Your task to perform on an android device: set the timer Image 0: 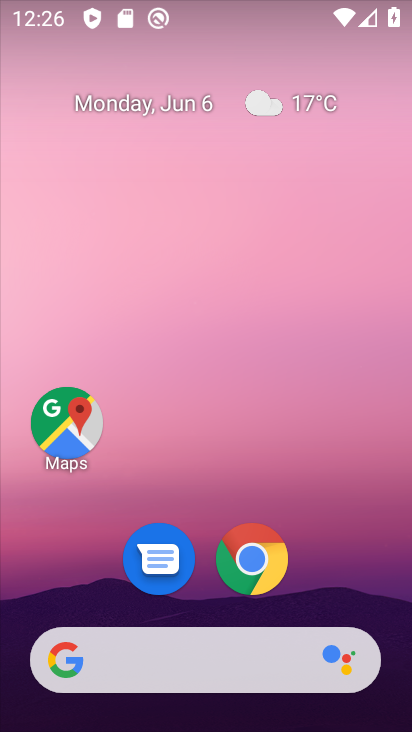
Step 0: drag from (267, 573) to (292, 50)
Your task to perform on an android device: set the timer Image 1: 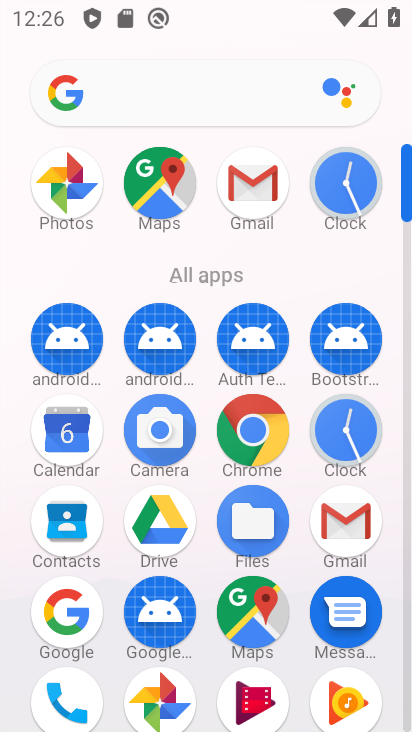
Step 1: drag from (255, 497) to (229, 39)
Your task to perform on an android device: set the timer Image 2: 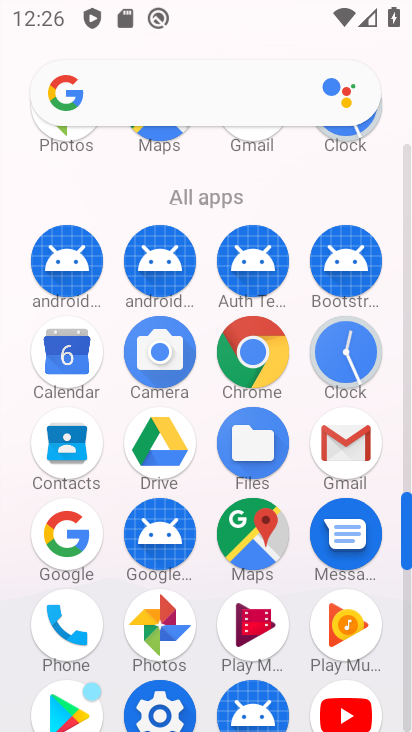
Step 2: drag from (224, 536) to (265, 165)
Your task to perform on an android device: set the timer Image 3: 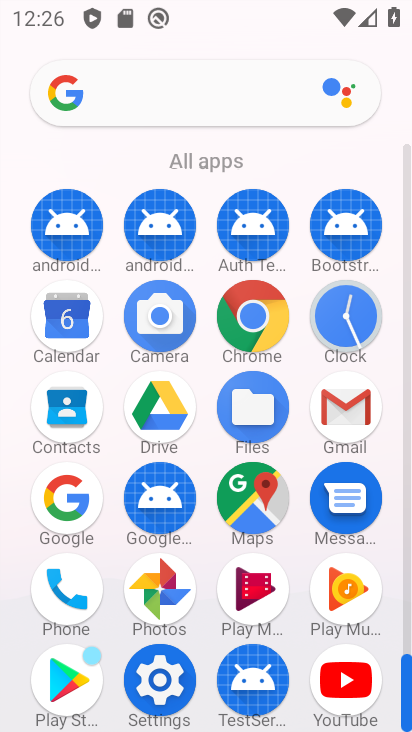
Step 3: click (345, 331)
Your task to perform on an android device: set the timer Image 4: 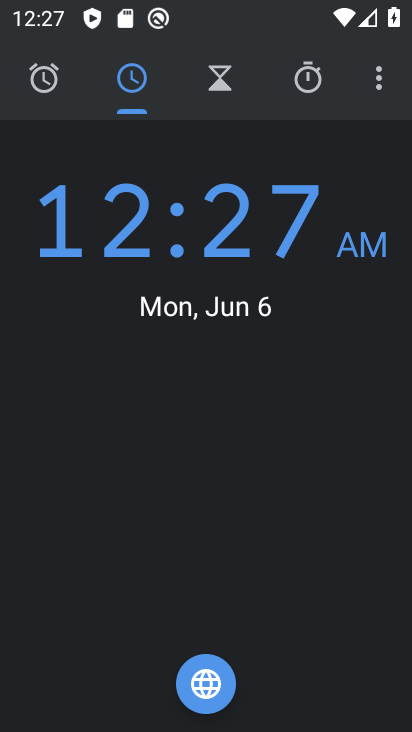
Step 4: click (231, 71)
Your task to perform on an android device: set the timer Image 5: 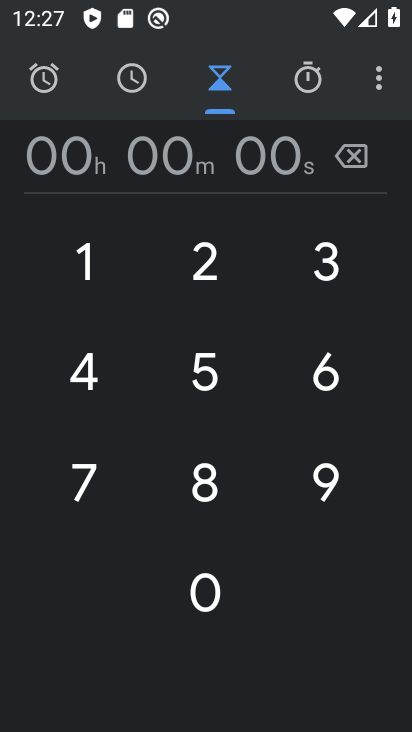
Step 5: click (219, 272)
Your task to perform on an android device: set the timer Image 6: 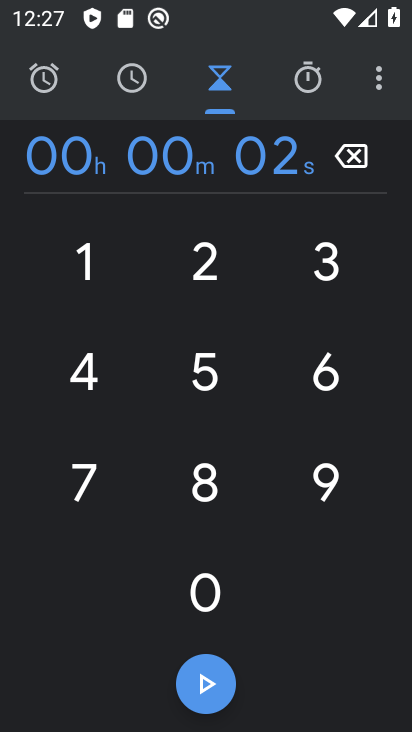
Step 6: click (213, 686)
Your task to perform on an android device: set the timer Image 7: 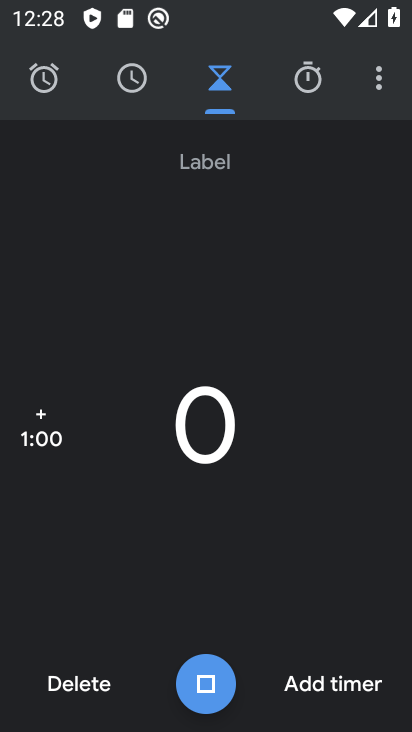
Step 7: task complete